Your task to perform on an android device: Toggle the flashlight Image 0: 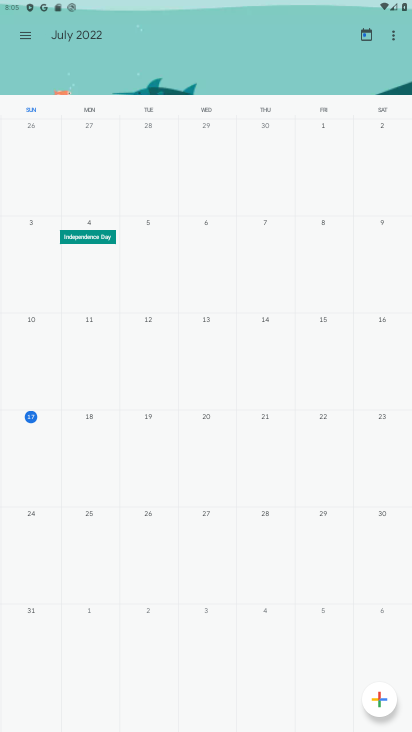
Step 0: drag from (286, 6) to (241, 444)
Your task to perform on an android device: Toggle the flashlight Image 1: 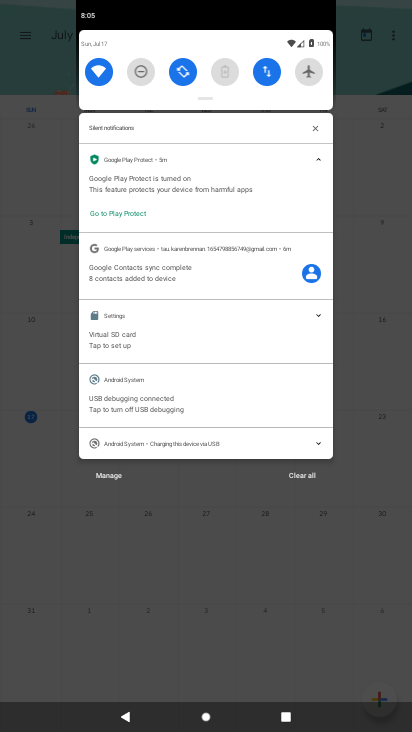
Step 1: task complete